Your task to perform on an android device: see sites visited before in the chrome app Image 0: 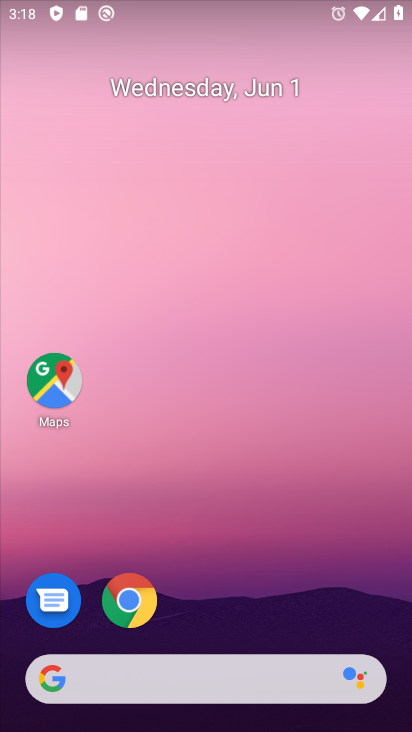
Step 0: click (130, 597)
Your task to perform on an android device: see sites visited before in the chrome app Image 1: 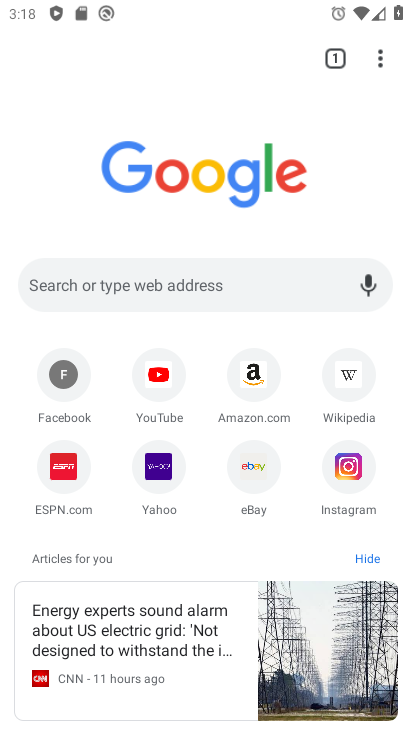
Step 1: click (390, 61)
Your task to perform on an android device: see sites visited before in the chrome app Image 2: 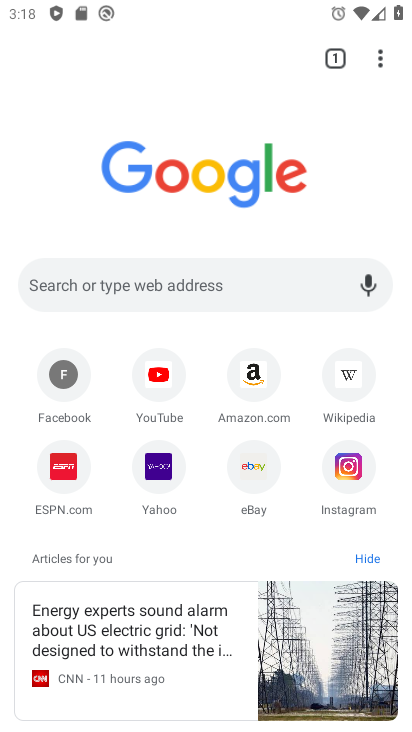
Step 2: click (381, 61)
Your task to perform on an android device: see sites visited before in the chrome app Image 3: 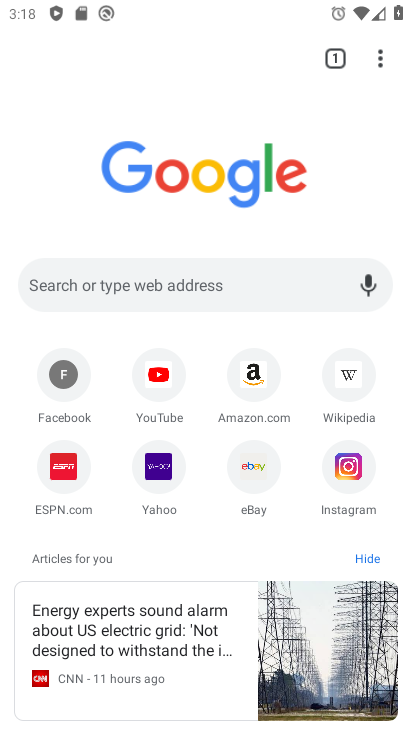
Step 3: click (379, 59)
Your task to perform on an android device: see sites visited before in the chrome app Image 4: 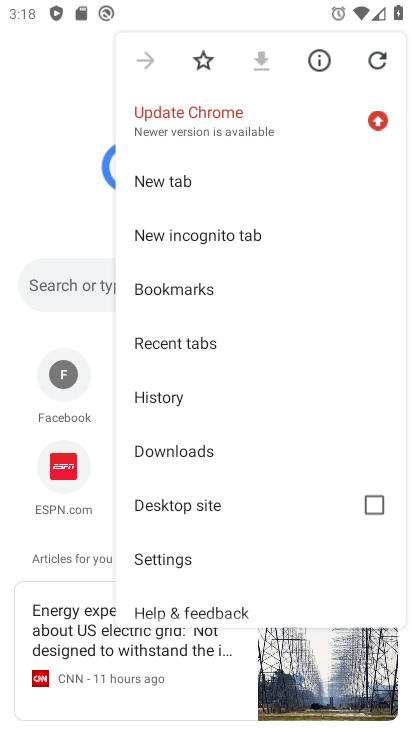
Step 4: click (169, 395)
Your task to perform on an android device: see sites visited before in the chrome app Image 5: 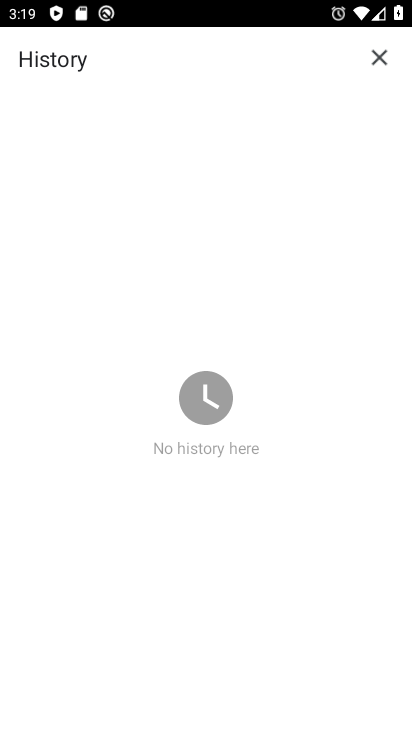
Step 5: task complete